Your task to perform on an android device: turn on translation in the chrome app Image 0: 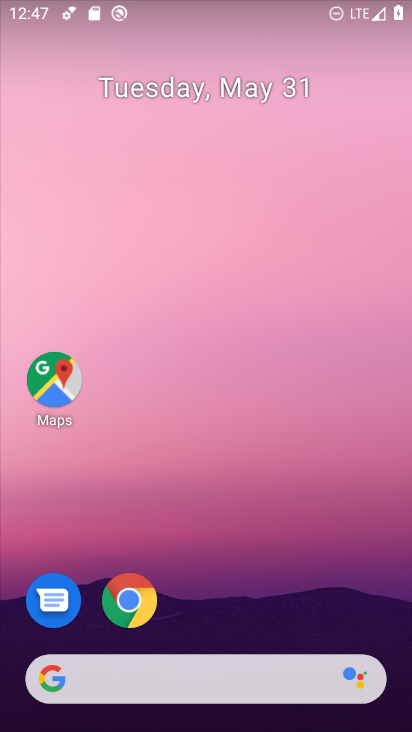
Step 0: click (134, 598)
Your task to perform on an android device: turn on translation in the chrome app Image 1: 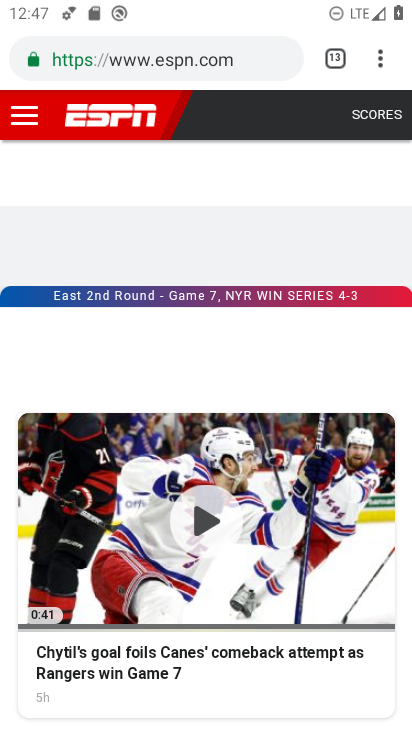
Step 1: click (381, 64)
Your task to perform on an android device: turn on translation in the chrome app Image 2: 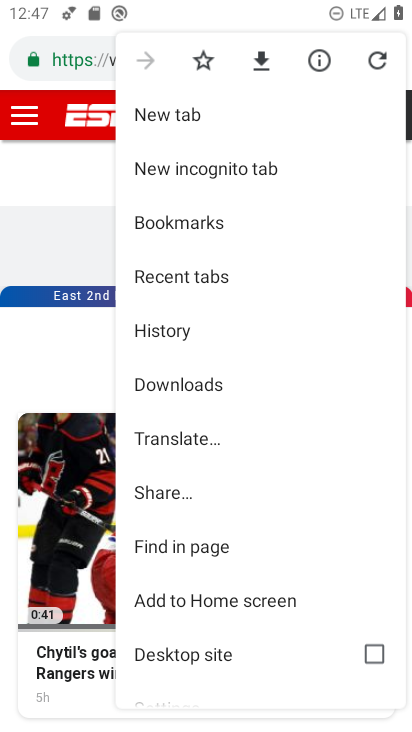
Step 2: drag from (189, 645) to (188, 586)
Your task to perform on an android device: turn on translation in the chrome app Image 3: 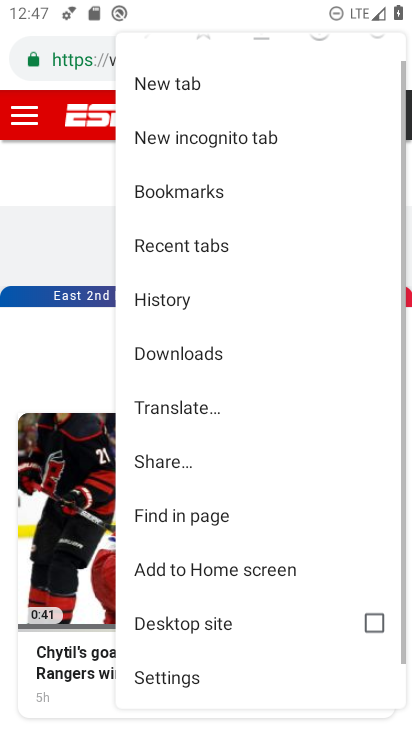
Step 3: drag from (194, 500) to (215, 267)
Your task to perform on an android device: turn on translation in the chrome app Image 4: 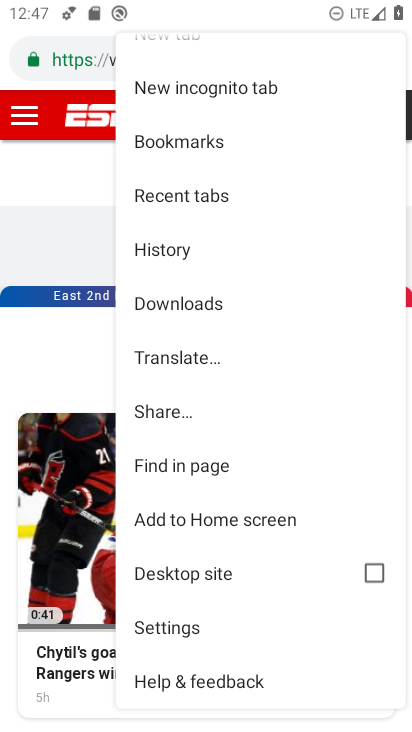
Step 4: click (174, 629)
Your task to perform on an android device: turn on translation in the chrome app Image 5: 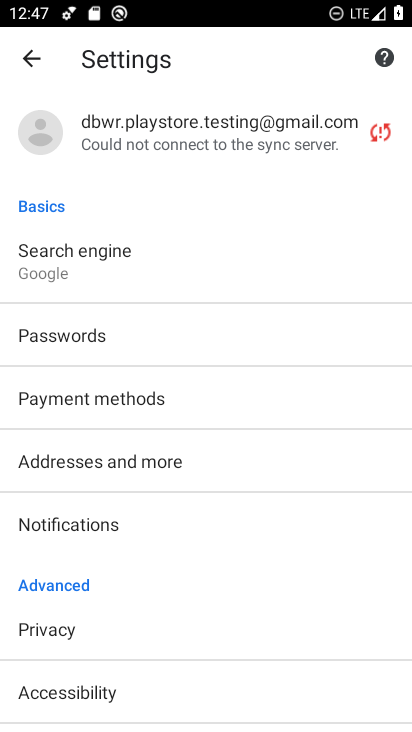
Step 5: drag from (166, 675) to (165, 533)
Your task to perform on an android device: turn on translation in the chrome app Image 6: 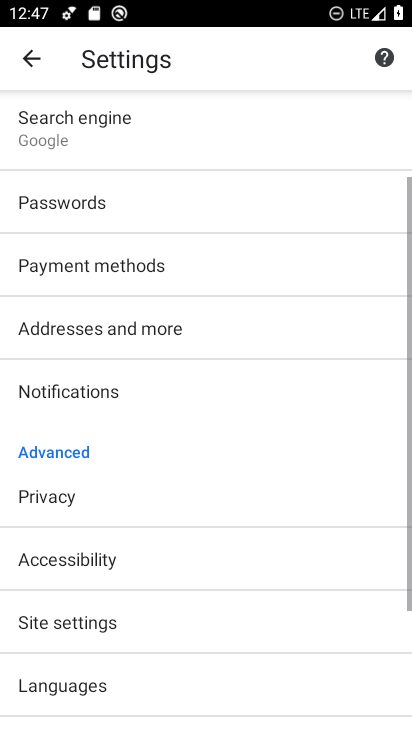
Step 6: drag from (165, 406) to (165, 310)
Your task to perform on an android device: turn on translation in the chrome app Image 7: 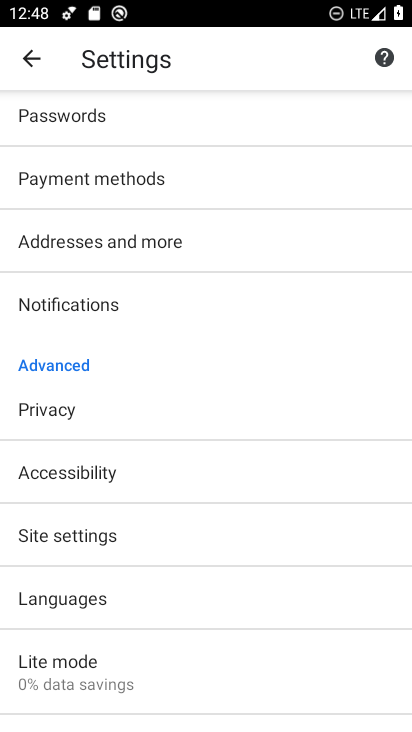
Step 7: click (77, 595)
Your task to perform on an android device: turn on translation in the chrome app Image 8: 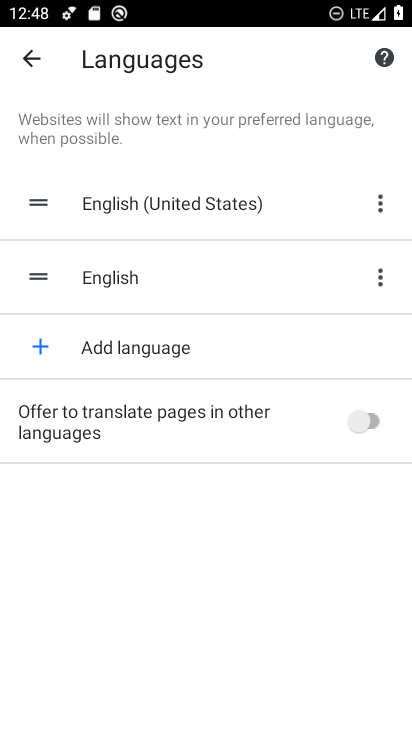
Step 8: click (369, 417)
Your task to perform on an android device: turn on translation in the chrome app Image 9: 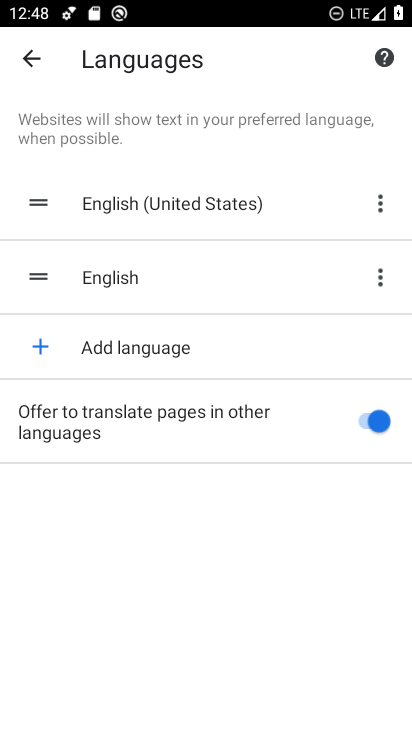
Step 9: task complete